Your task to perform on an android device: open app "Adobe Acrobat Reader" Image 0: 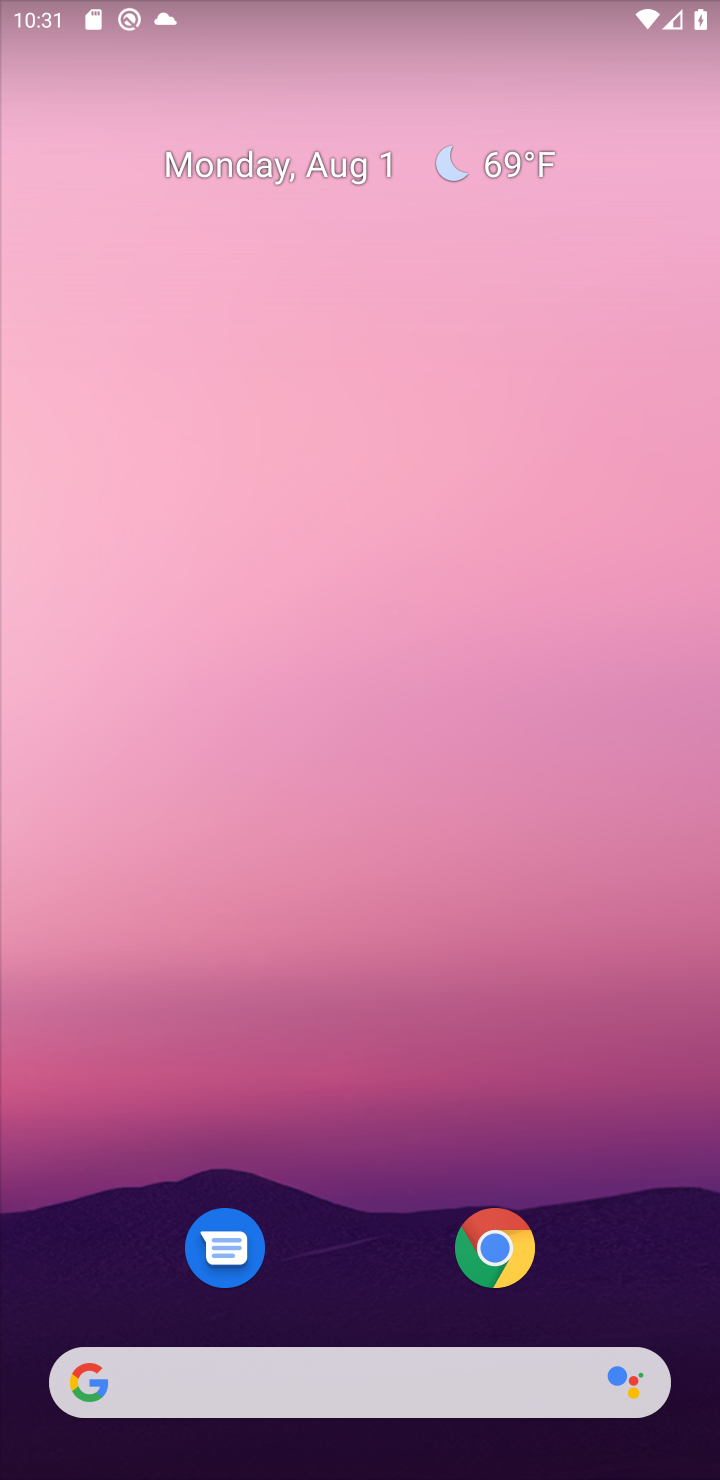
Step 0: drag from (375, 1067) to (707, 252)
Your task to perform on an android device: open app "Adobe Acrobat Reader" Image 1: 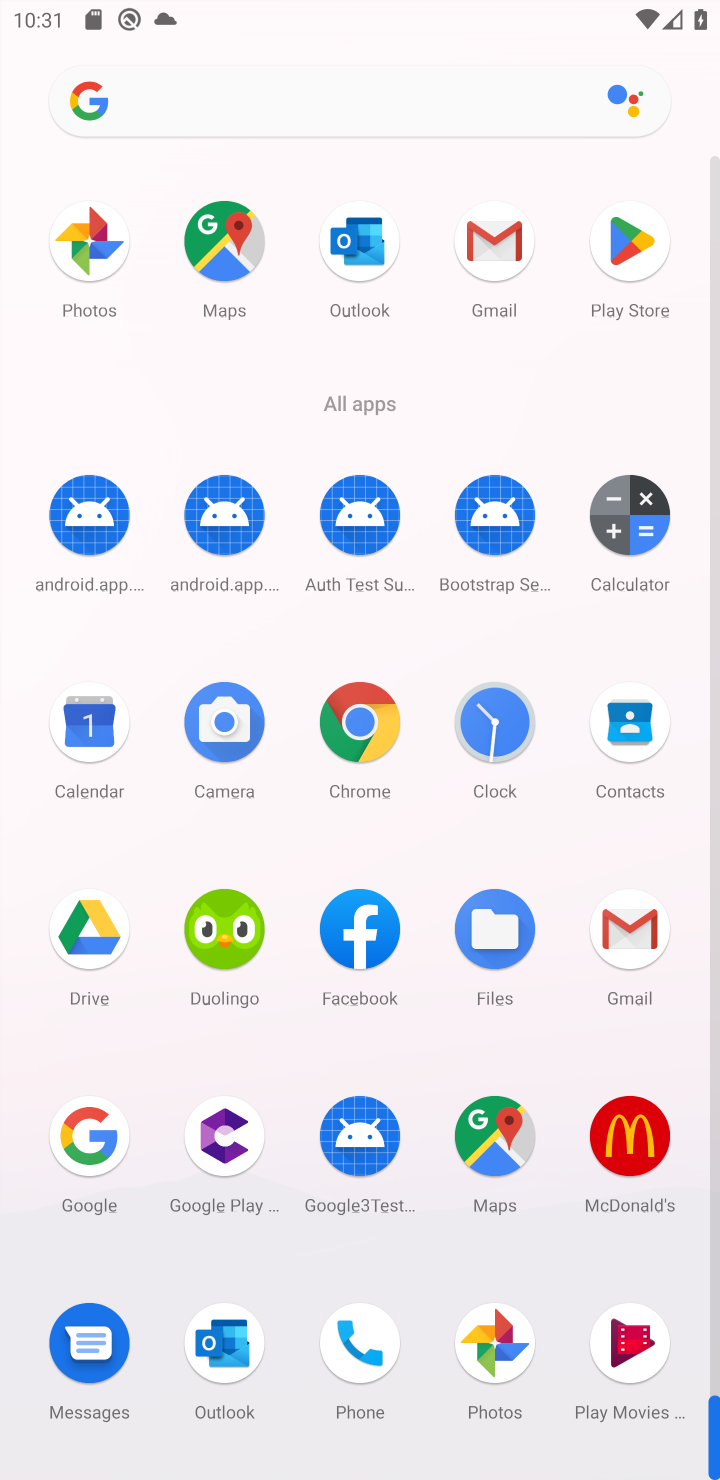
Step 1: drag from (447, 1257) to (485, 442)
Your task to perform on an android device: open app "Adobe Acrobat Reader" Image 2: 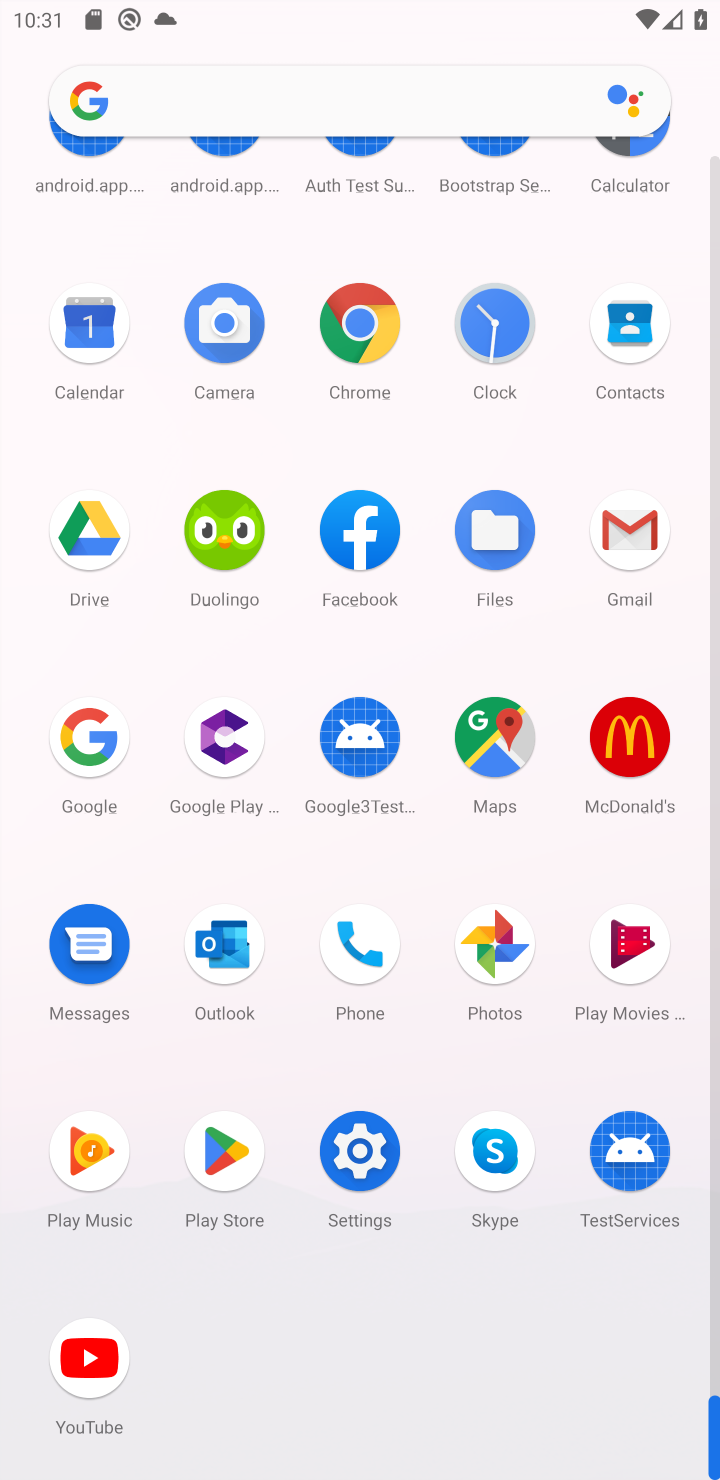
Step 2: click (210, 1116)
Your task to perform on an android device: open app "Adobe Acrobat Reader" Image 3: 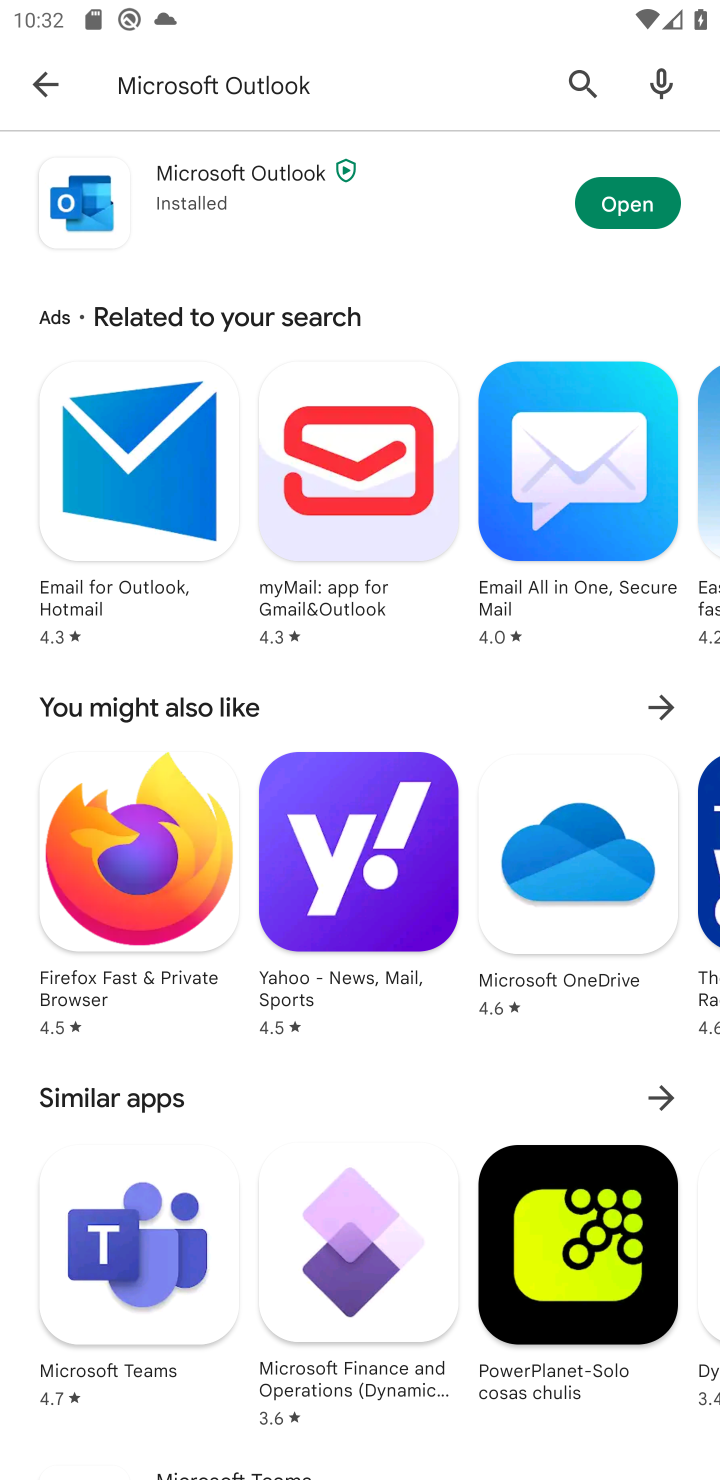
Step 3: click (322, 65)
Your task to perform on an android device: open app "Adobe Acrobat Reader" Image 4: 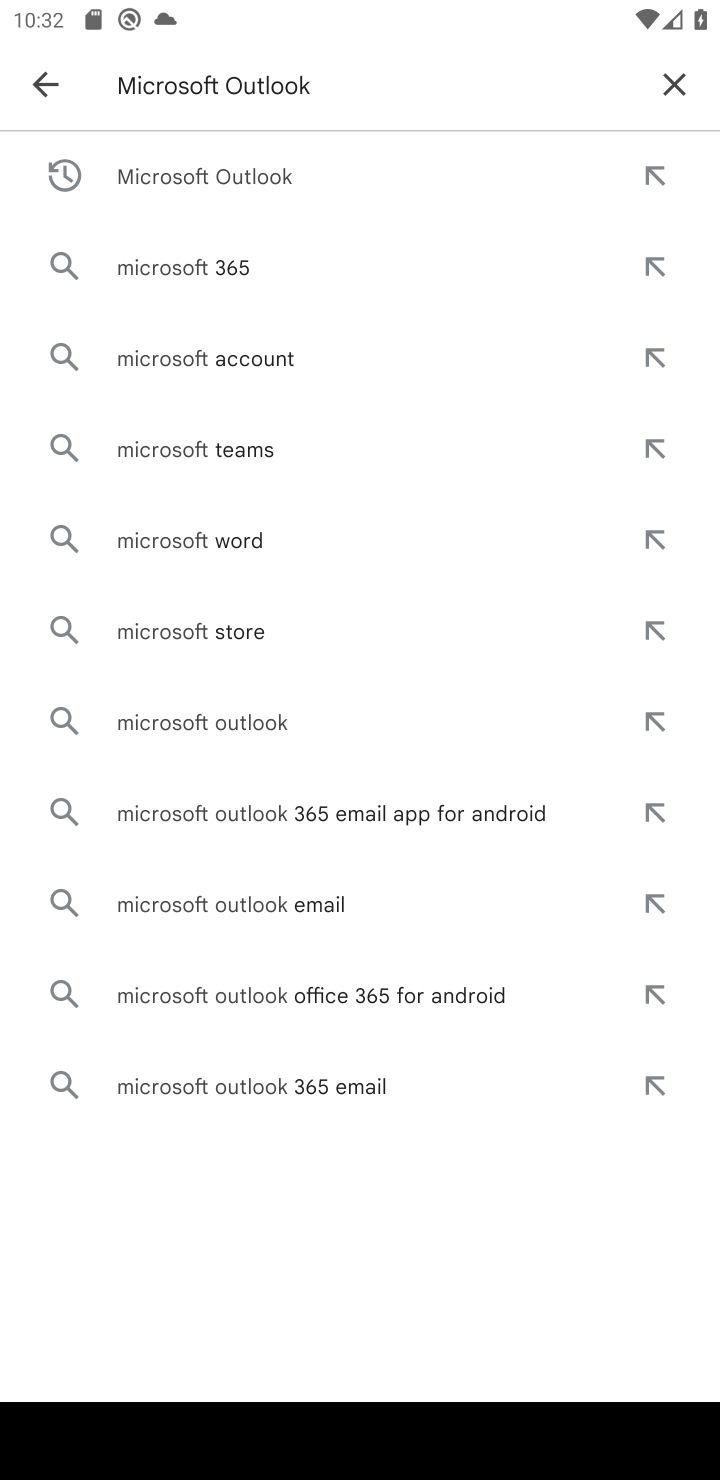
Step 4: click (671, 83)
Your task to perform on an android device: open app "Adobe Acrobat Reader" Image 5: 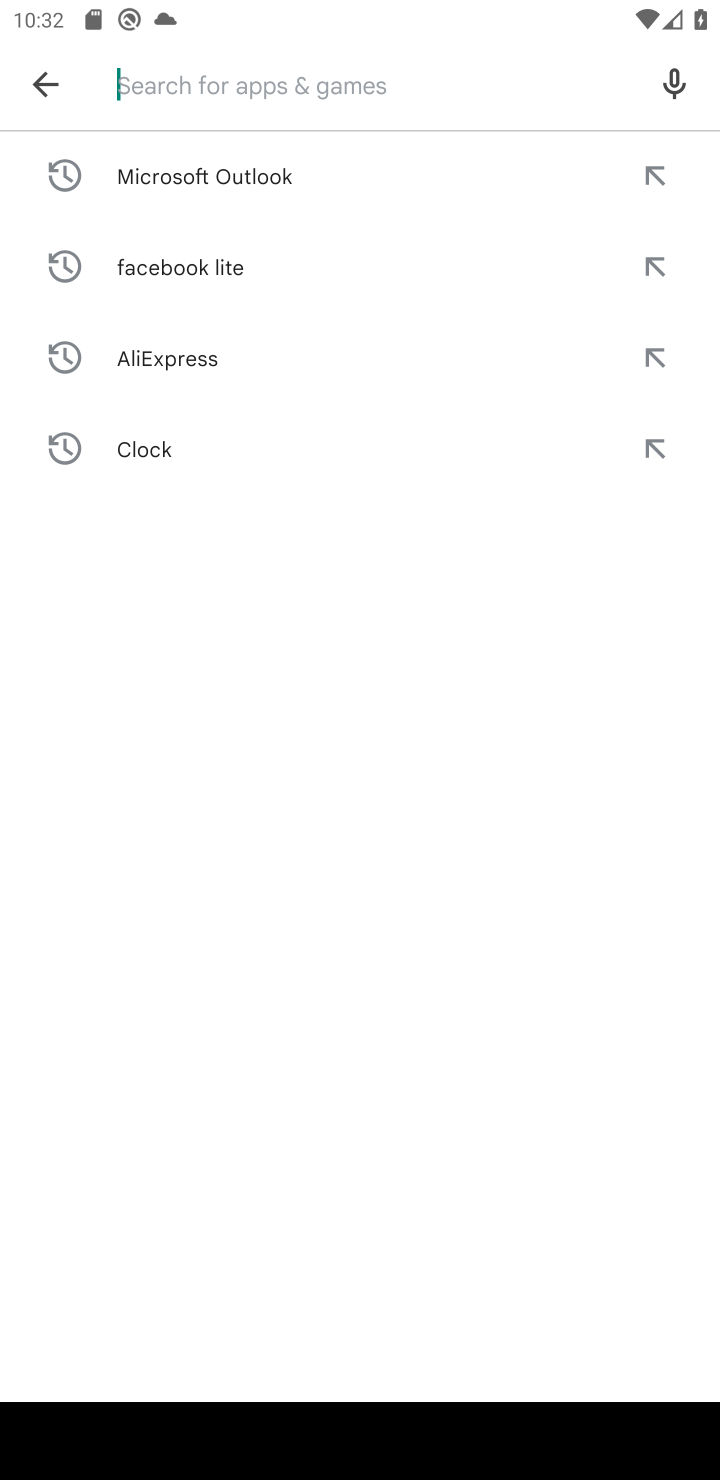
Step 5: type "Adobe Acrobat Reader"
Your task to perform on an android device: open app "Adobe Acrobat Reader" Image 6: 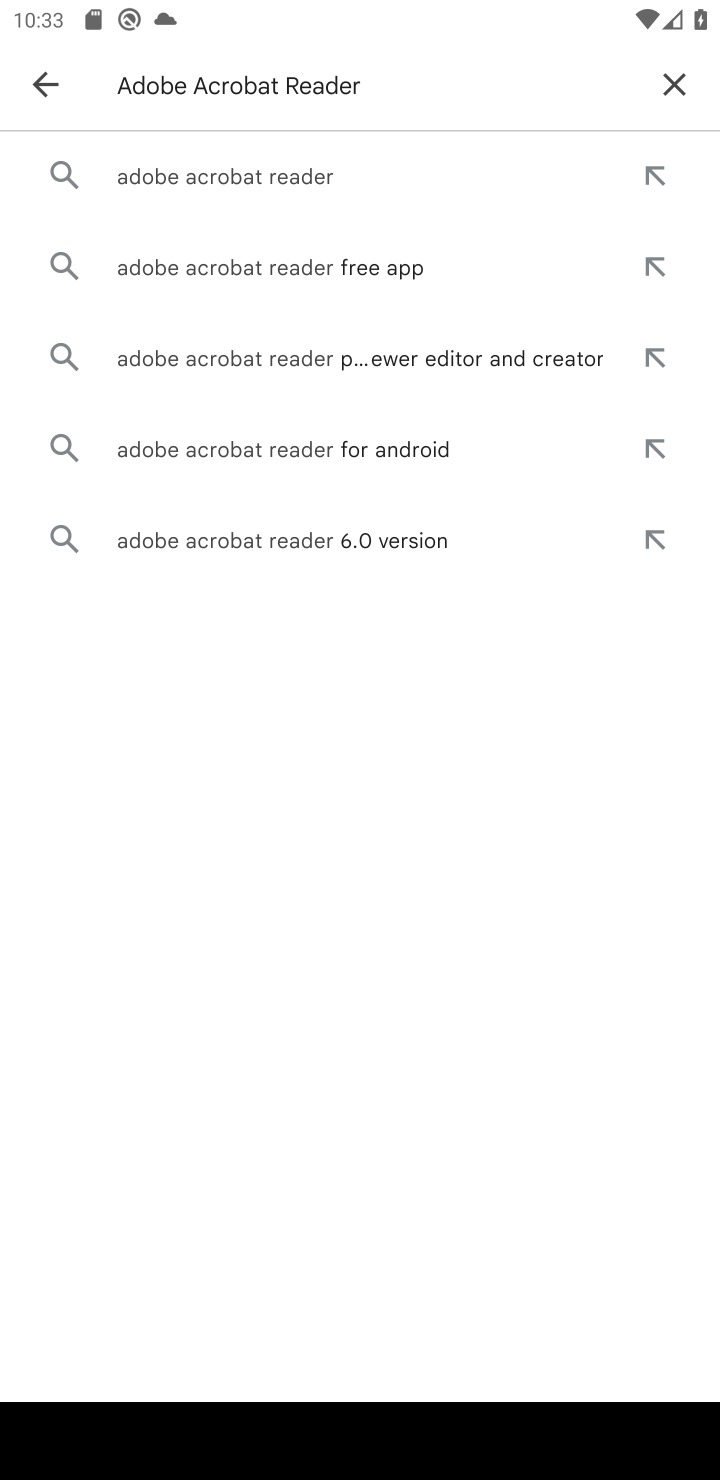
Step 6: press enter
Your task to perform on an android device: open app "Adobe Acrobat Reader" Image 7: 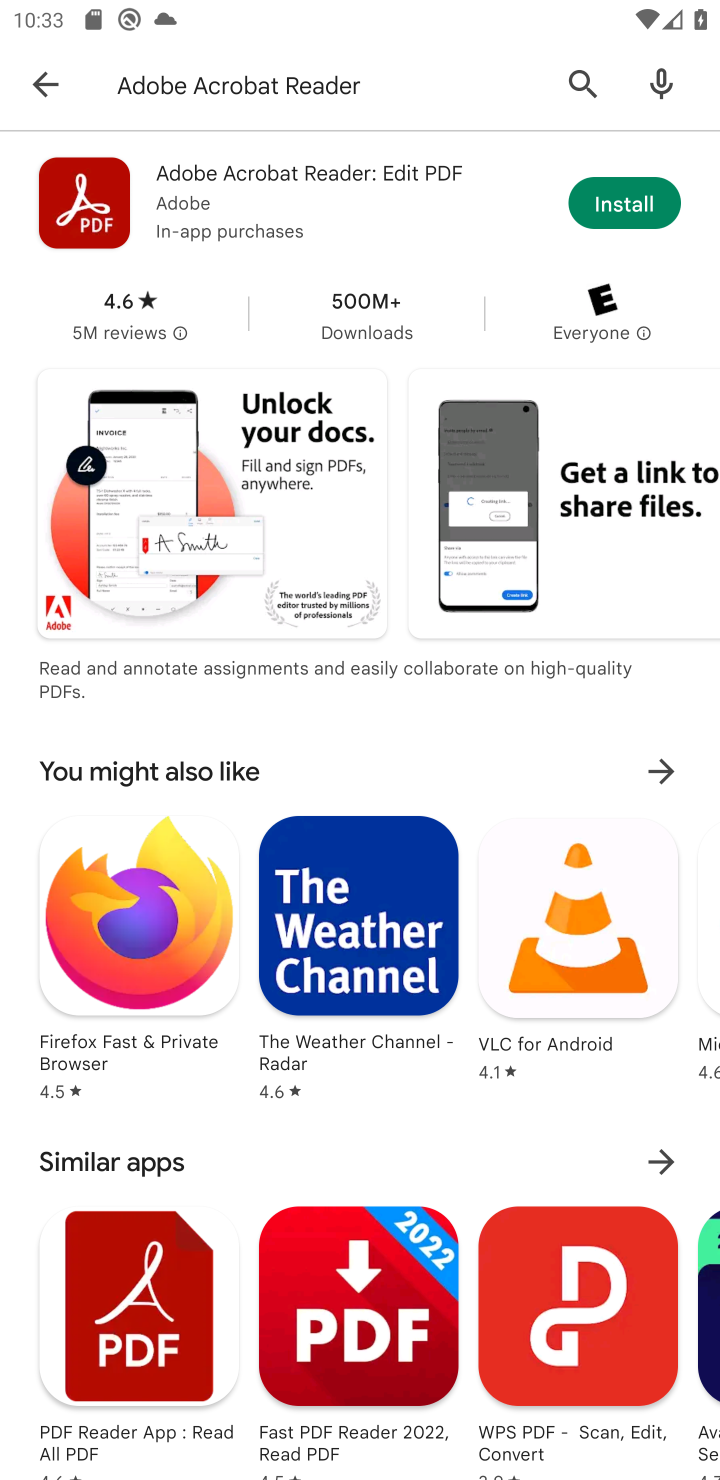
Step 7: click (247, 187)
Your task to perform on an android device: open app "Adobe Acrobat Reader" Image 8: 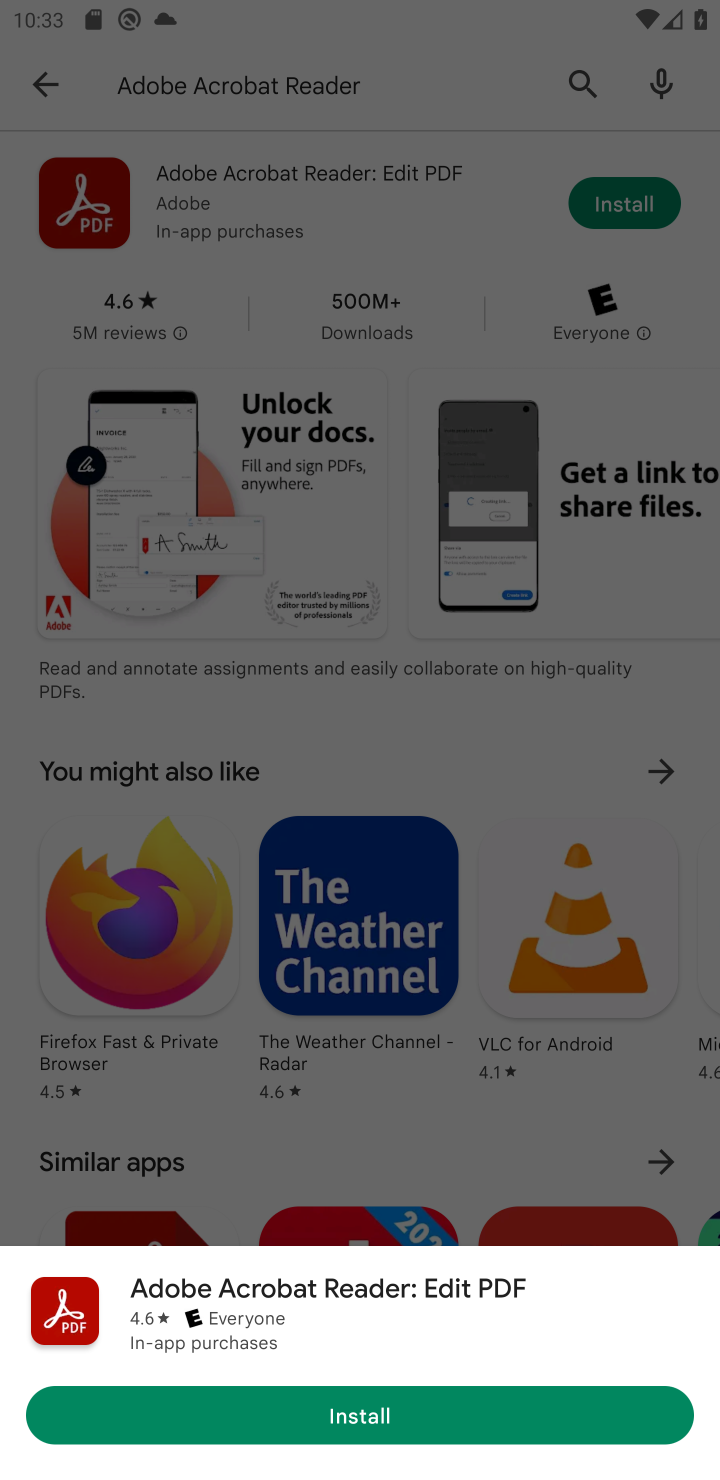
Step 8: task complete